Your task to perform on an android device: uninstall "The Home Depot" Image 0: 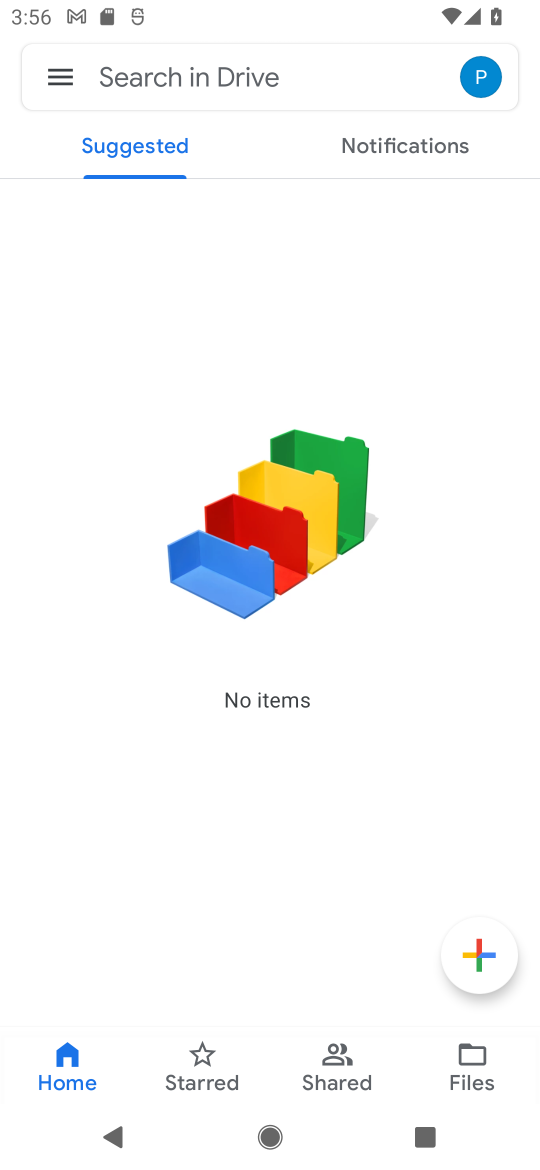
Step 0: press home button
Your task to perform on an android device: uninstall "The Home Depot" Image 1: 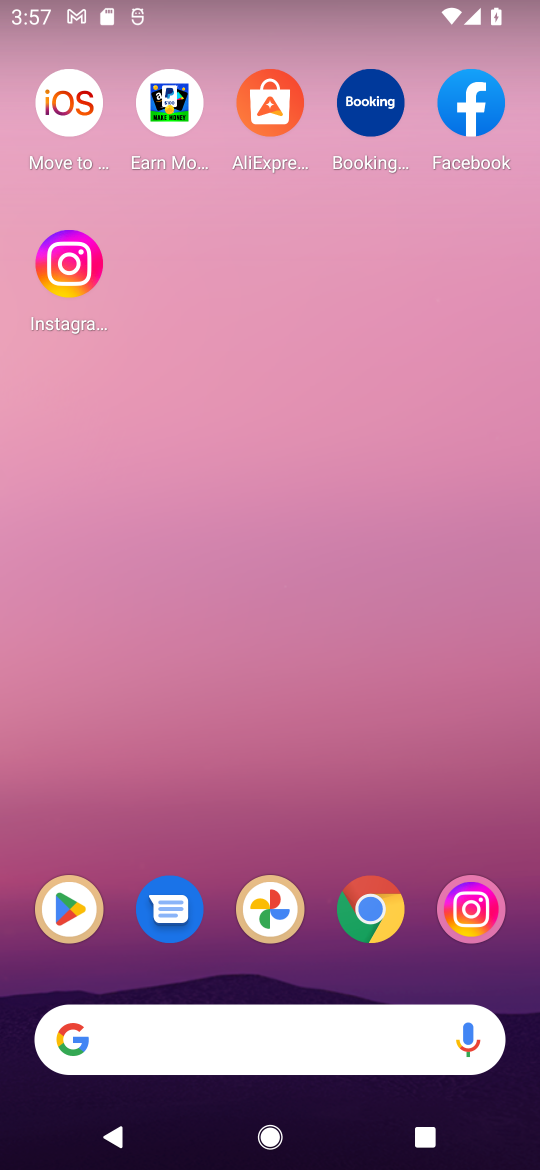
Step 1: click (68, 905)
Your task to perform on an android device: uninstall "The Home Depot" Image 2: 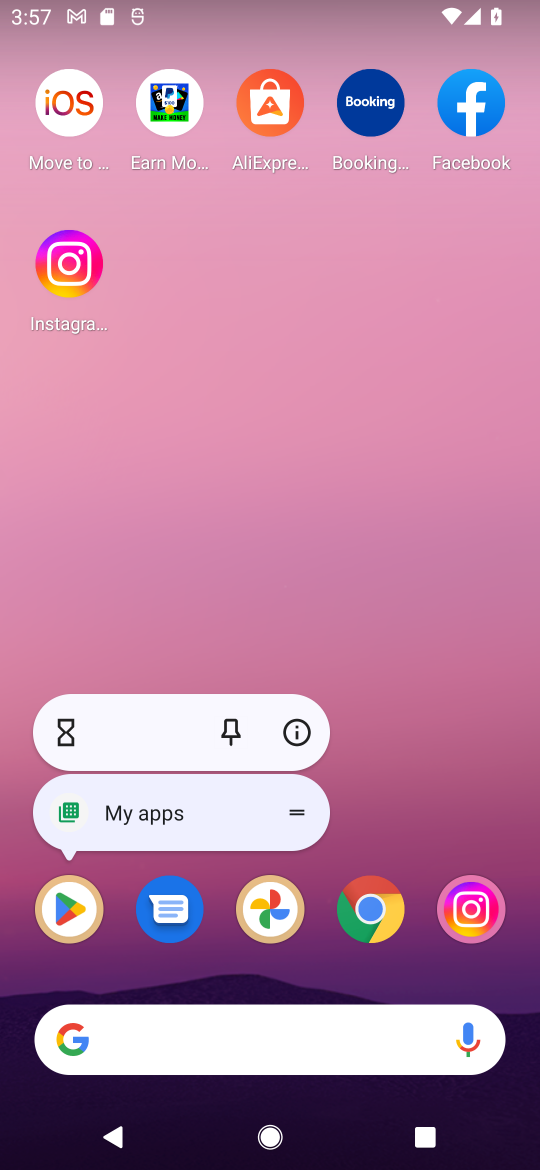
Step 2: click (66, 910)
Your task to perform on an android device: uninstall "The Home Depot" Image 3: 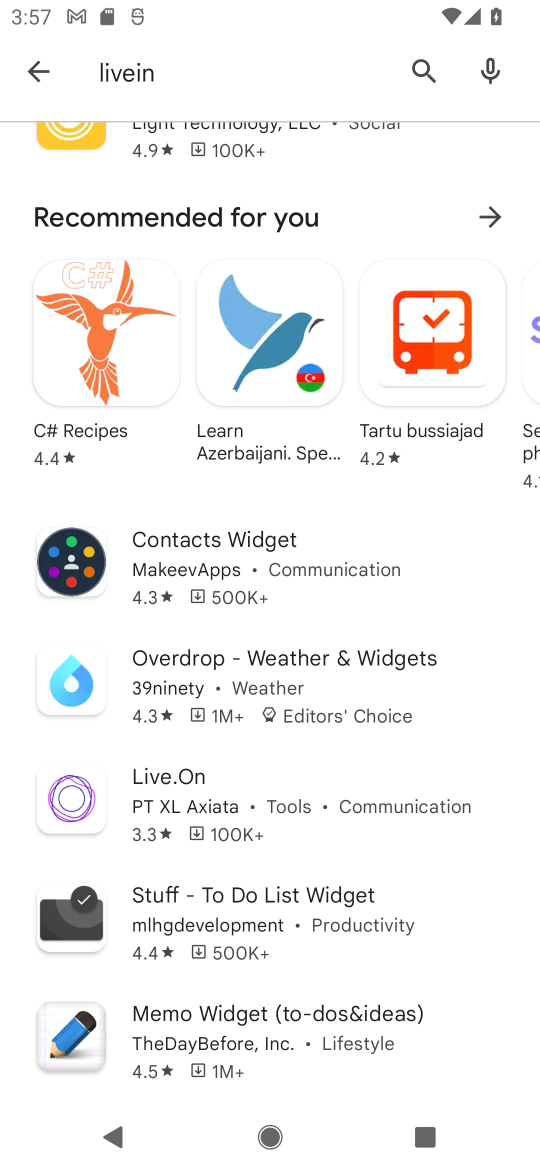
Step 3: click (207, 33)
Your task to perform on an android device: uninstall "The Home Depot" Image 4: 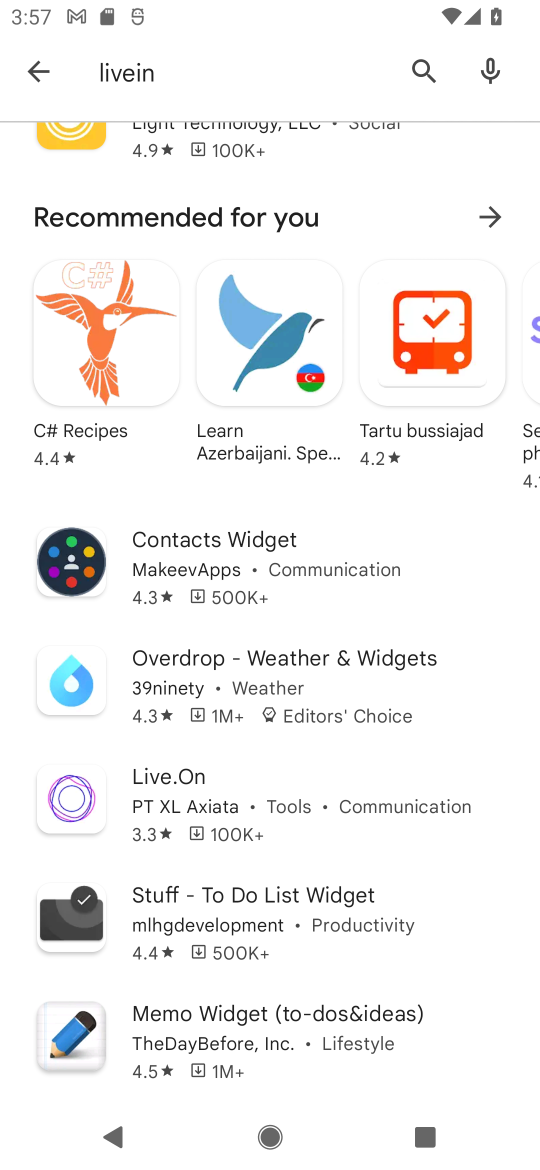
Step 4: click (186, 86)
Your task to perform on an android device: uninstall "The Home Depot" Image 5: 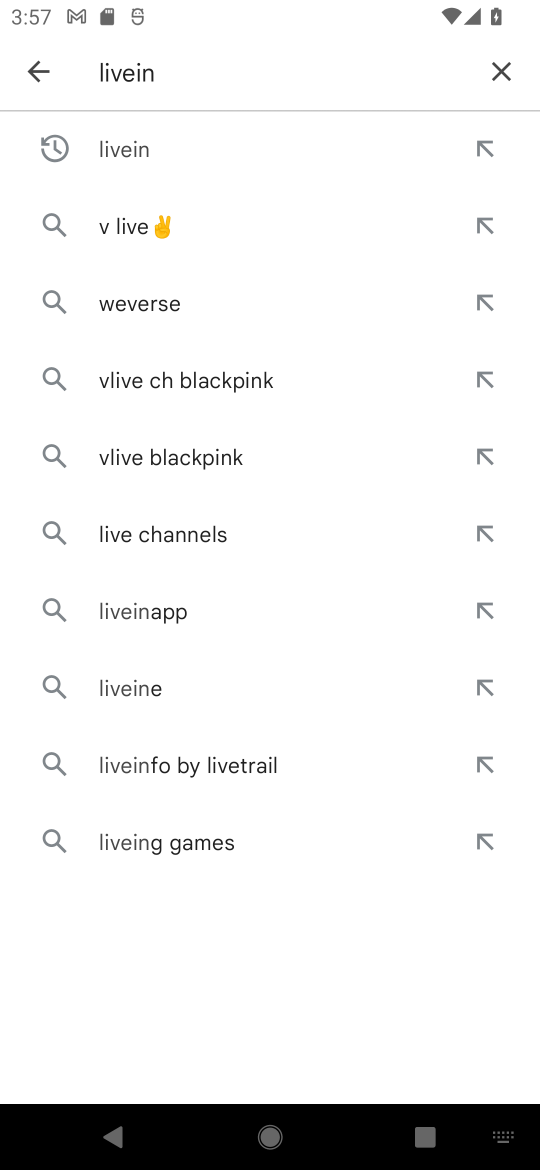
Step 5: click (505, 73)
Your task to perform on an android device: uninstall "The Home Depot" Image 6: 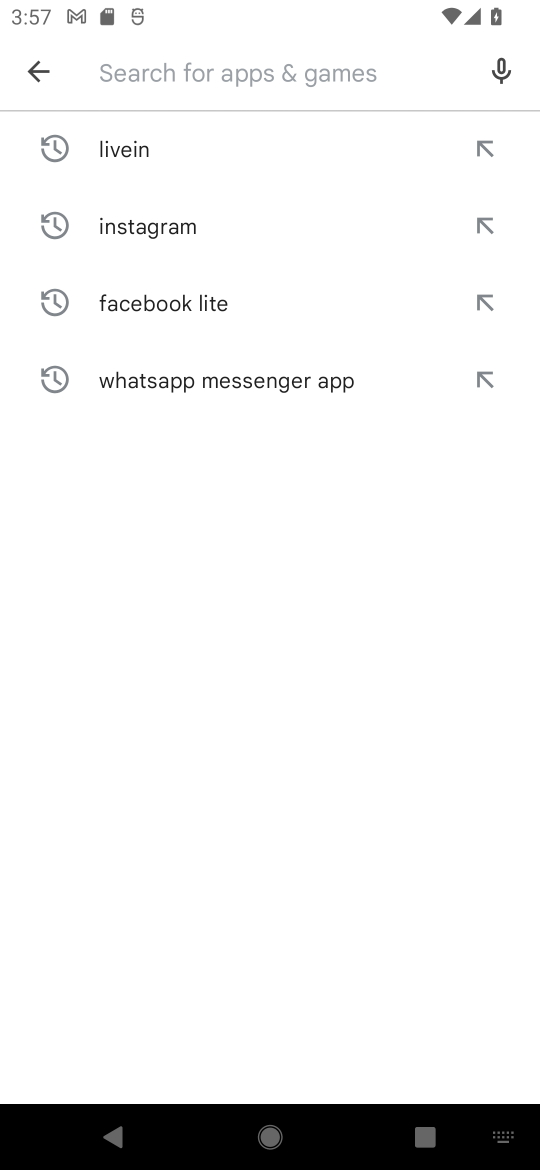
Step 6: type "The home depot"
Your task to perform on an android device: uninstall "The Home Depot" Image 7: 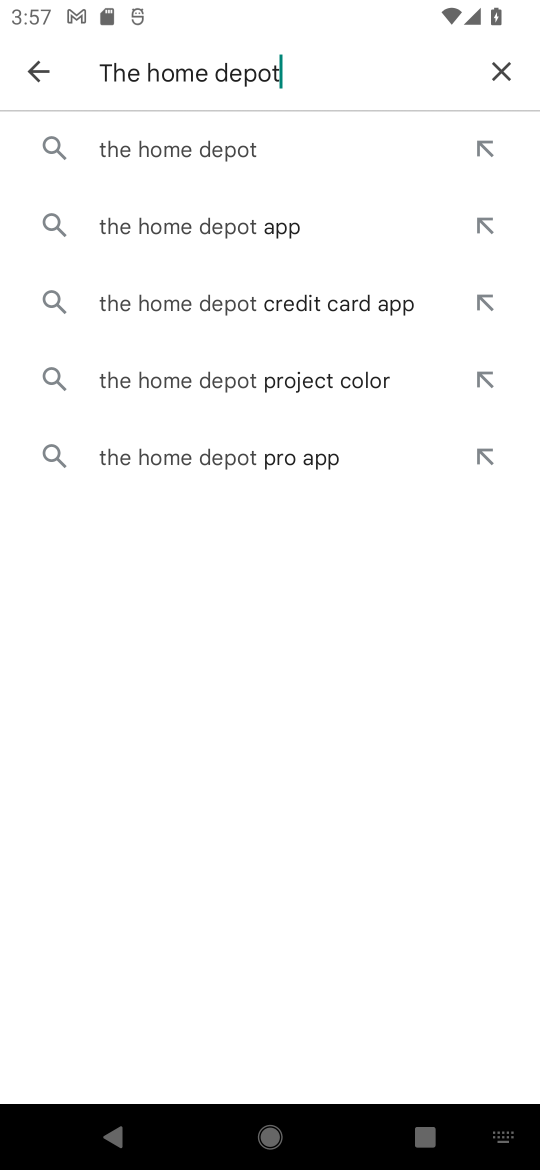
Step 7: click (192, 152)
Your task to perform on an android device: uninstall "The Home Depot" Image 8: 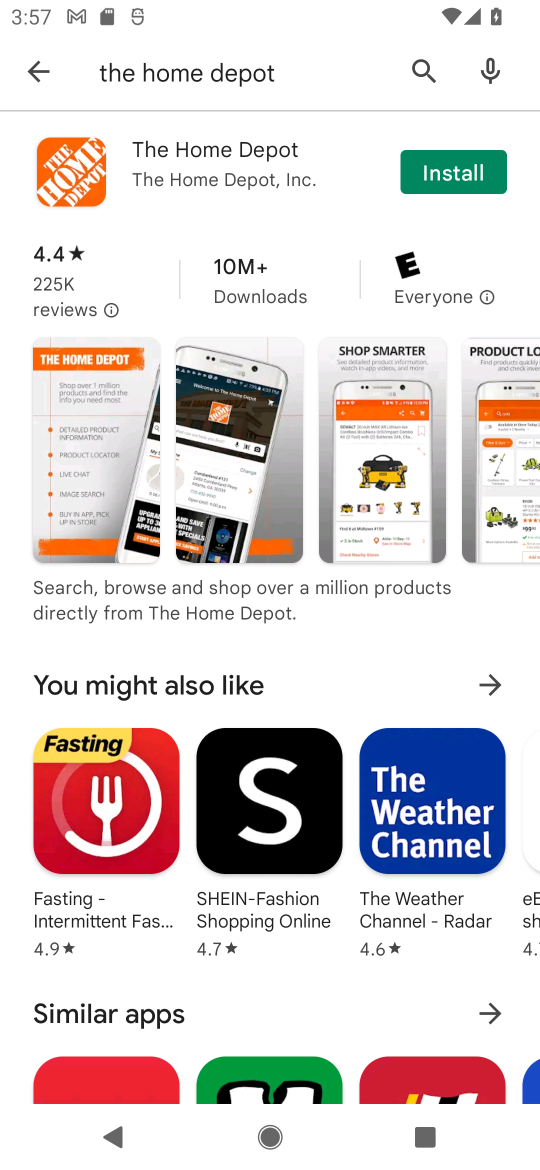
Step 8: click (113, 158)
Your task to perform on an android device: uninstall "The Home Depot" Image 9: 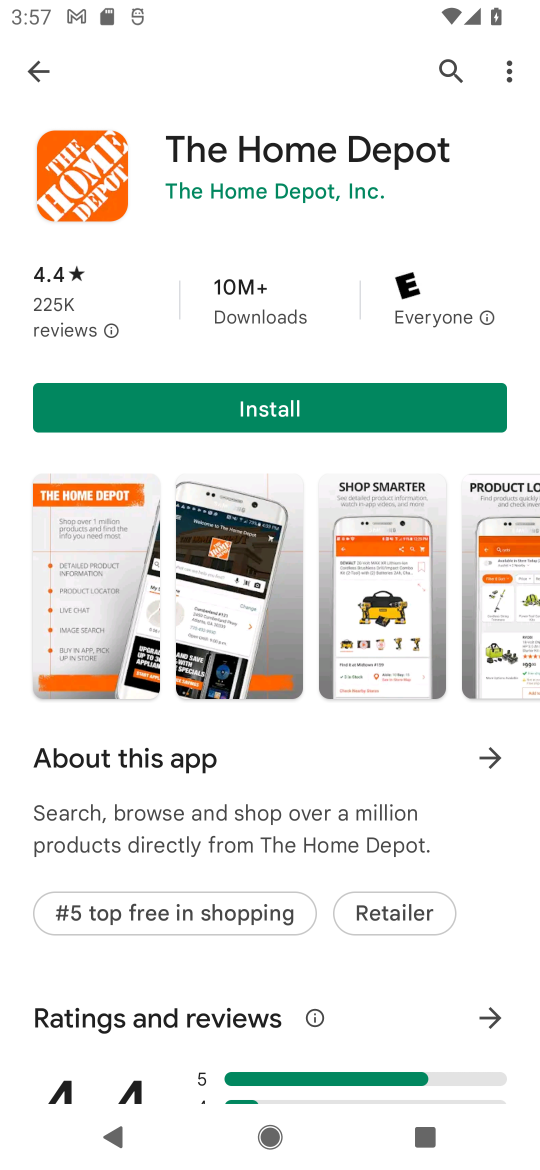
Step 9: task complete